Your task to perform on an android device: Go to notification settings Image 0: 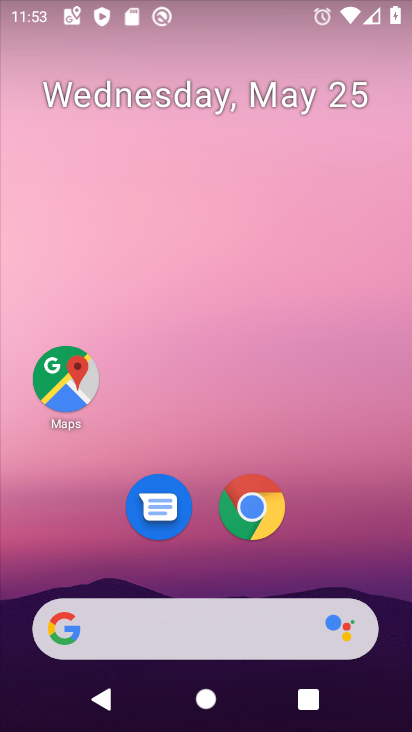
Step 0: drag from (323, 534) to (301, 65)
Your task to perform on an android device: Go to notification settings Image 1: 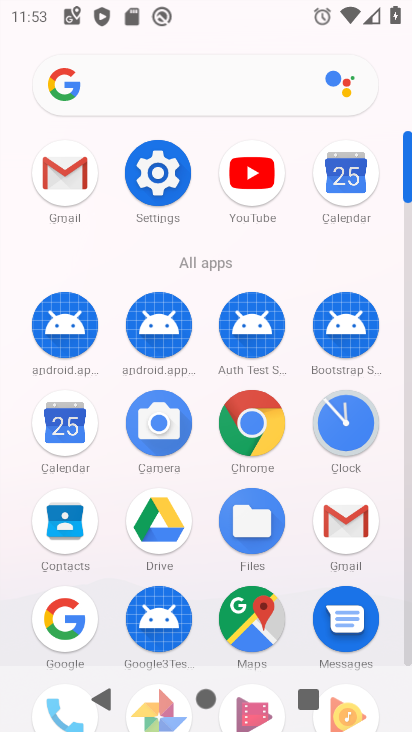
Step 1: click (157, 174)
Your task to perform on an android device: Go to notification settings Image 2: 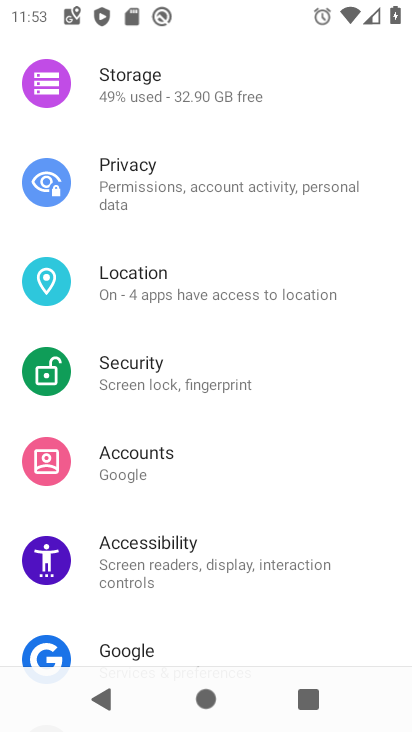
Step 2: drag from (192, 137) to (216, 265)
Your task to perform on an android device: Go to notification settings Image 3: 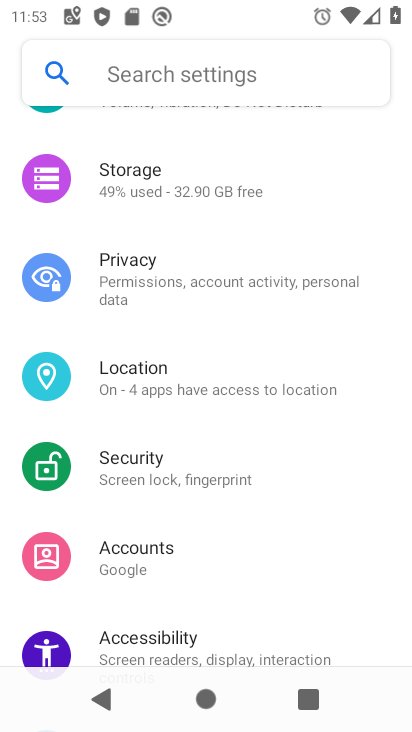
Step 3: drag from (197, 160) to (207, 307)
Your task to perform on an android device: Go to notification settings Image 4: 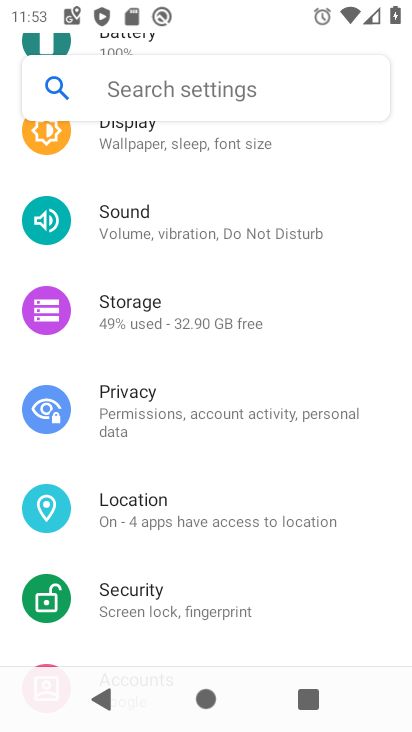
Step 4: drag from (202, 201) to (207, 390)
Your task to perform on an android device: Go to notification settings Image 5: 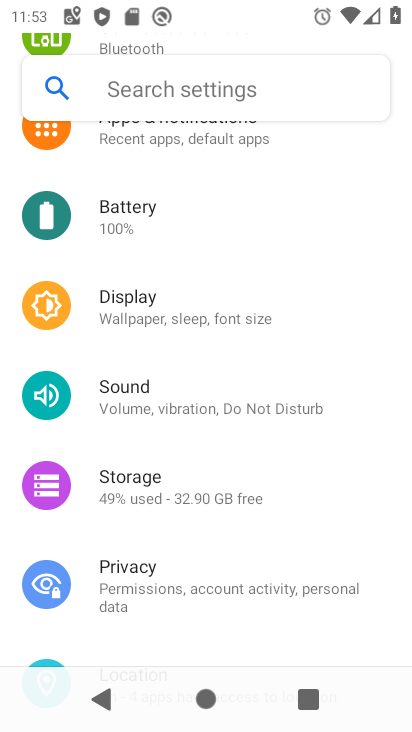
Step 5: drag from (210, 230) to (235, 405)
Your task to perform on an android device: Go to notification settings Image 6: 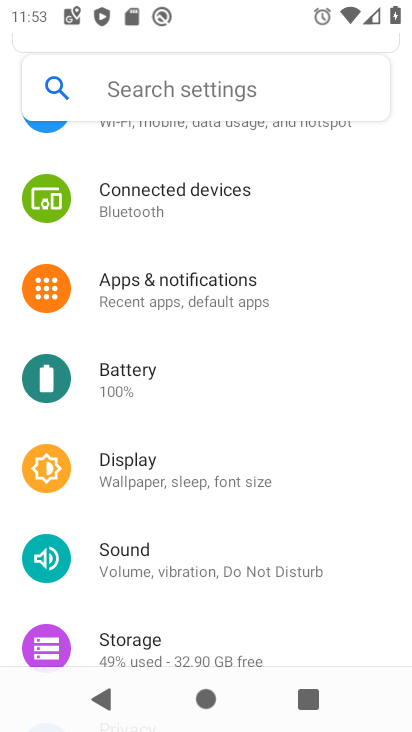
Step 6: click (208, 287)
Your task to perform on an android device: Go to notification settings Image 7: 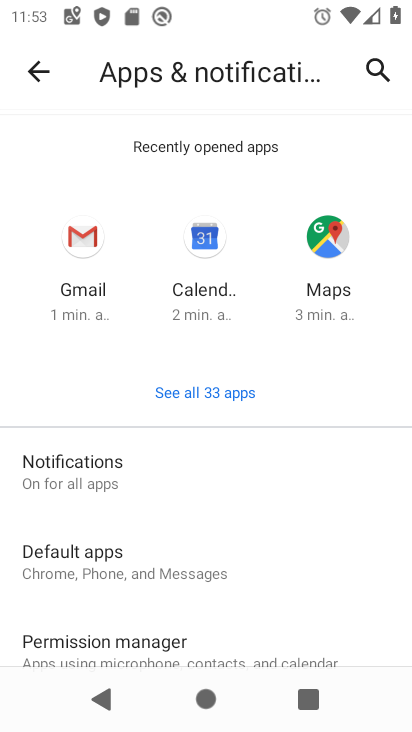
Step 7: click (73, 459)
Your task to perform on an android device: Go to notification settings Image 8: 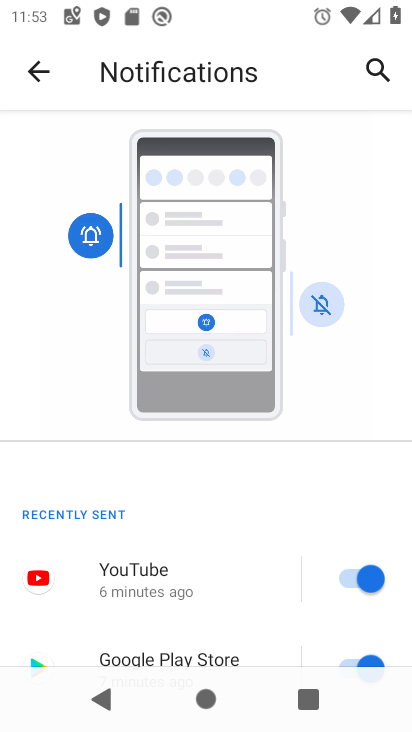
Step 8: task complete